Your task to perform on an android device: Open Chrome and go to settings Image 0: 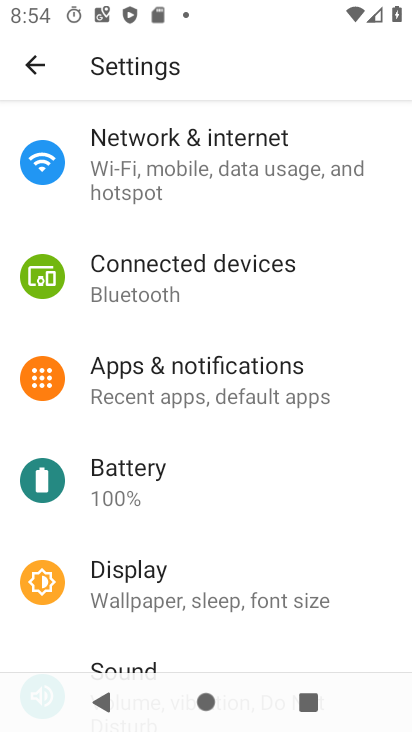
Step 0: press home button
Your task to perform on an android device: Open Chrome and go to settings Image 1: 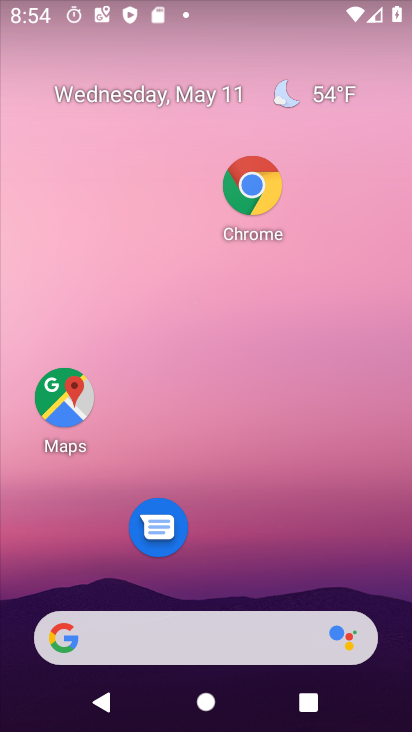
Step 1: click (252, 190)
Your task to perform on an android device: Open Chrome and go to settings Image 2: 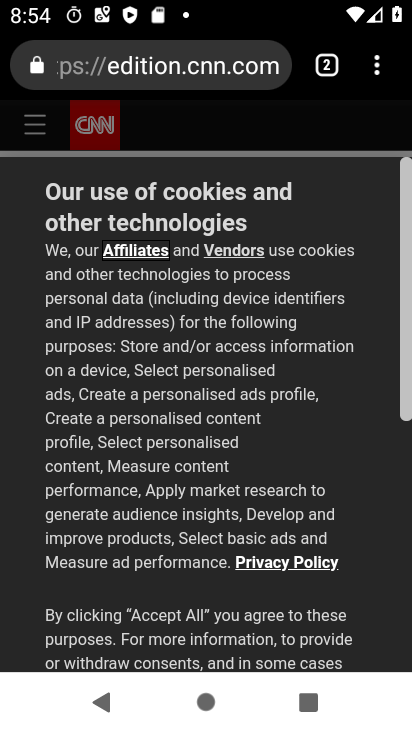
Step 2: click (365, 66)
Your task to perform on an android device: Open Chrome and go to settings Image 3: 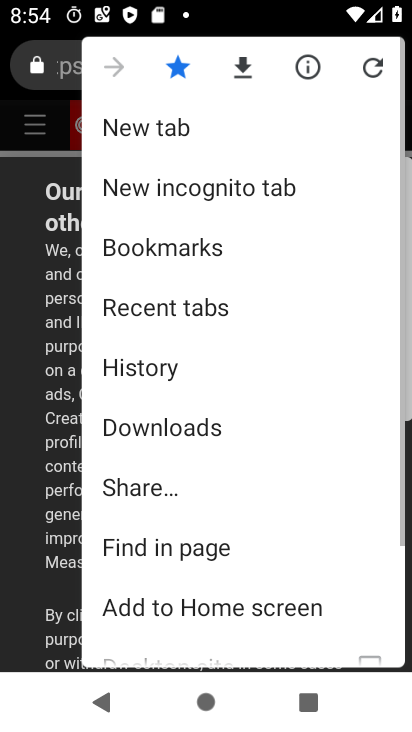
Step 3: drag from (214, 526) to (186, 62)
Your task to perform on an android device: Open Chrome and go to settings Image 4: 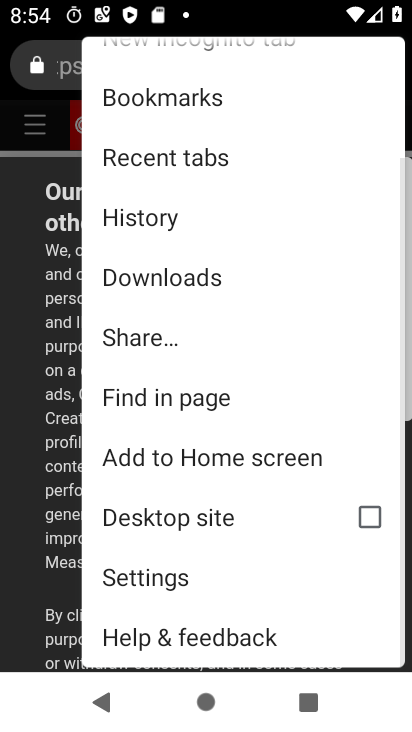
Step 4: click (153, 585)
Your task to perform on an android device: Open Chrome and go to settings Image 5: 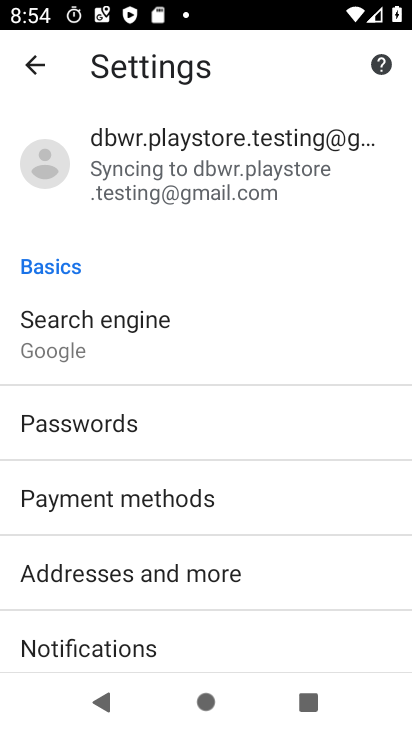
Step 5: task complete